Your task to perform on an android device: Go to notification settings Image 0: 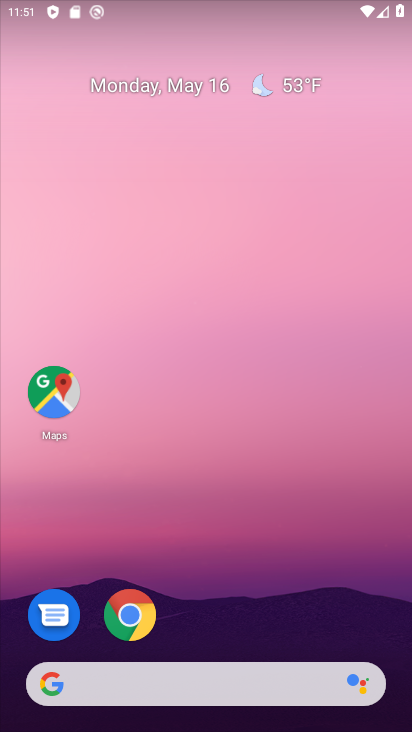
Step 0: drag from (357, 596) to (314, 34)
Your task to perform on an android device: Go to notification settings Image 1: 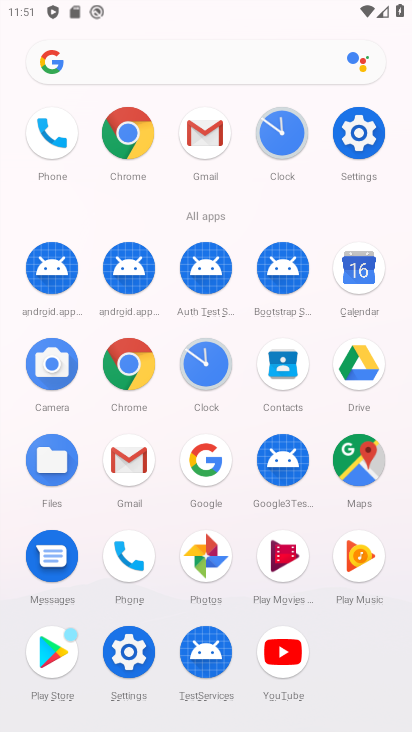
Step 1: click (354, 150)
Your task to perform on an android device: Go to notification settings Image 2: 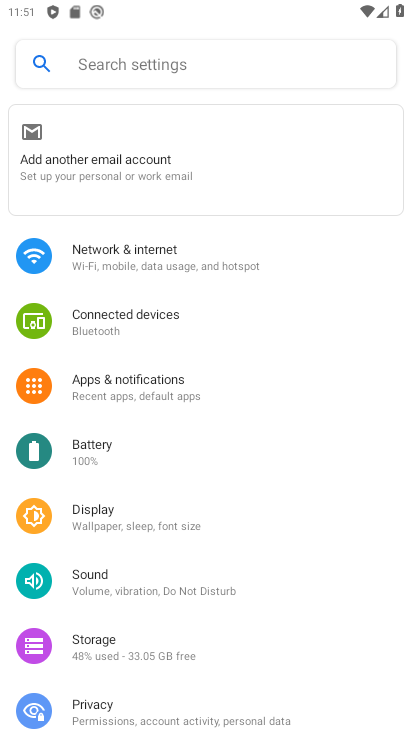
Step 2: click (191, 409)
Your task to perform on an android device: Go to notification settings Image 3: 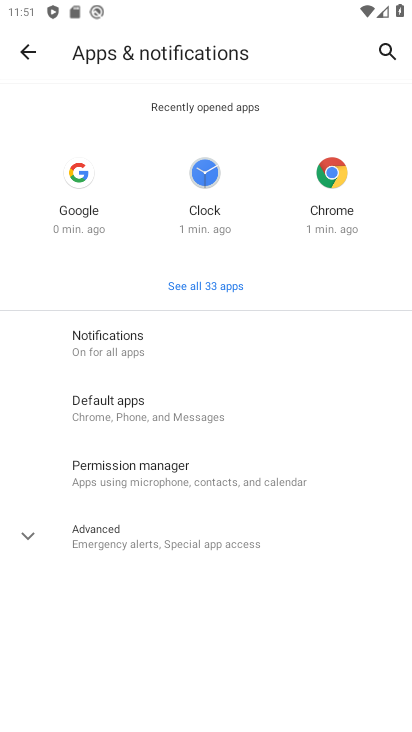
Step 3: click (164, 378)
Your task to perform on an android device: Go to notification settings Image 4: 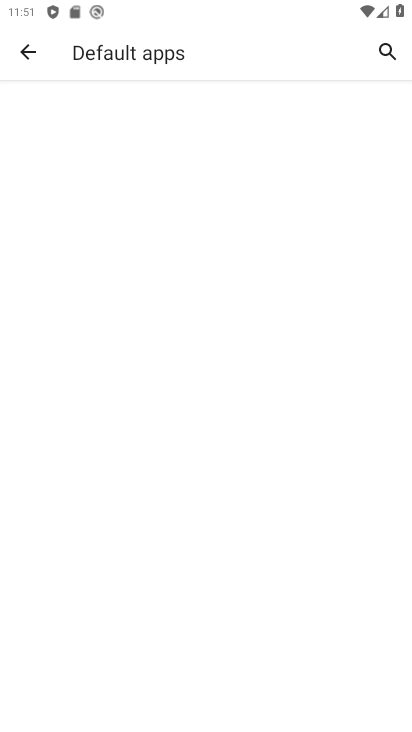
Step 4: task complete